Your task to perform on an android device: Open the calendar app, open the side menu, and click the "Day" option Image 0: 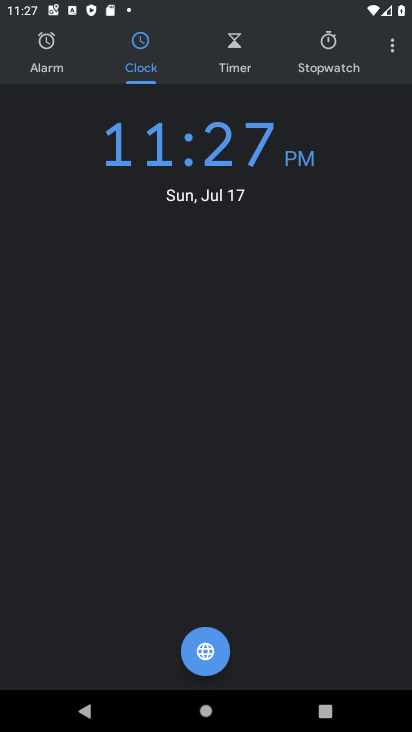
Step 0: press home button
Your task to perform on an android device: Open the calendar app, open the side menu, and click the "Day" option Image 1: 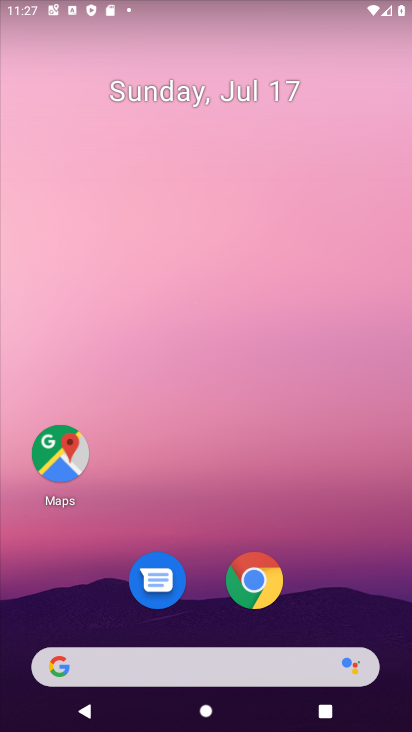
Step 1: drag from (248, 664) to (243, 231)
Your task to perform on an android device: Open the calendar app, open the side menu, and click the "Day" option Image 2: 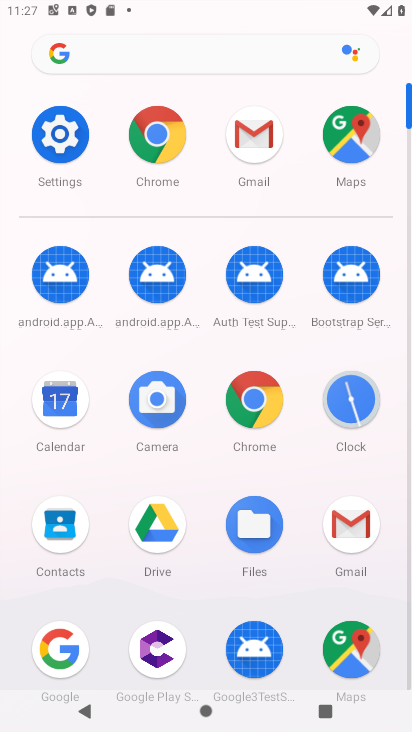
Step 2: drag from (138, 544) to (146, 405)
Your task to perform on an android device: Open the calendar app, open the side menu, and click the "Day" option Image 3: 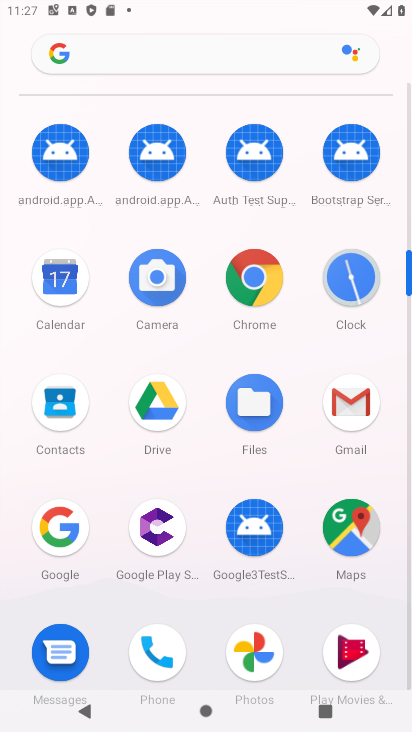
Step 3: click (64, 298)
Your task to perform on an android device: Open the calendar app, open the side menu, and click the "Day" option Image 4: 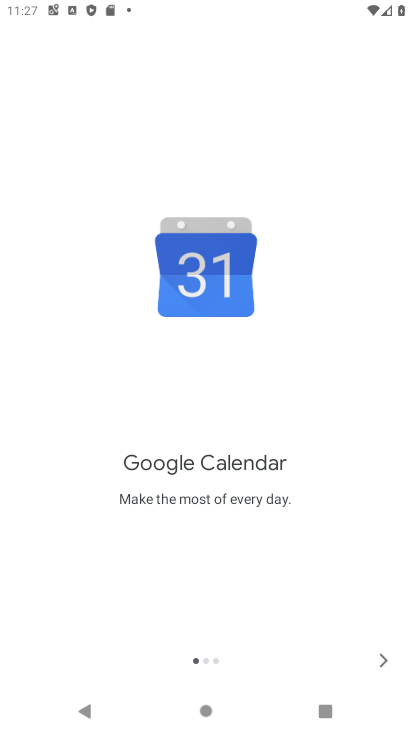
Step 4: click (380, 661)
Your task to perform on an android device: Open the calendar app, open the side menu, and click the "Day" option Image 5: 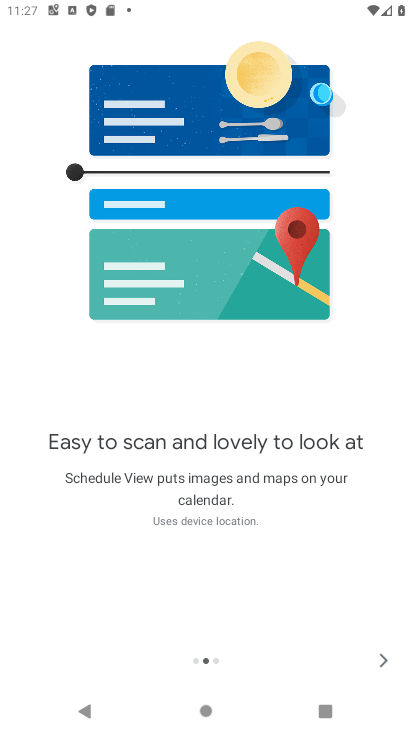
Step 5: click (376, 657)
Your task to perform on an android device: Open the calendar app, open the side menu, and click the "Day" option Image 6: 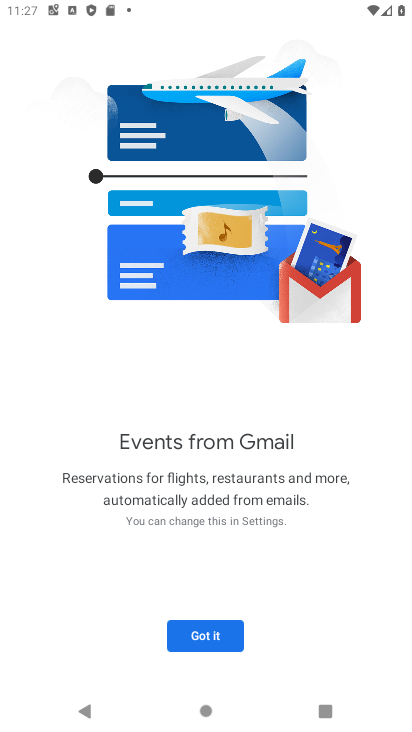
Step 6: click (222, 644)
Your task to perform on an android device: Open the calendar app, open the side menu, and click the "Day" option Image 7: 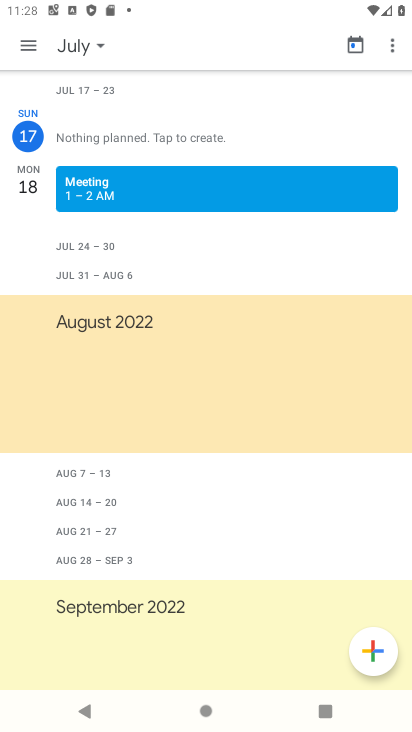
Step 7: click (26, 46)
Your task to perform on an android device: Open the calendar app, open the side menu, and click the "Day" option Image 8: 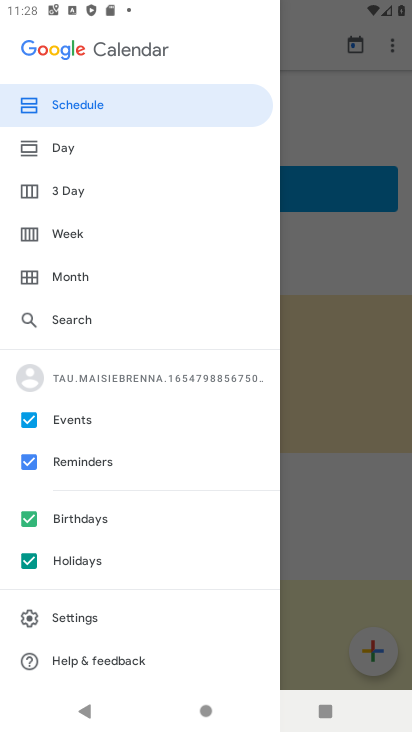
Step 8: click (80, 152)
Your task to perform on an android device: Open the calendar app, open the side menu, and click the "Day" option Image 9: 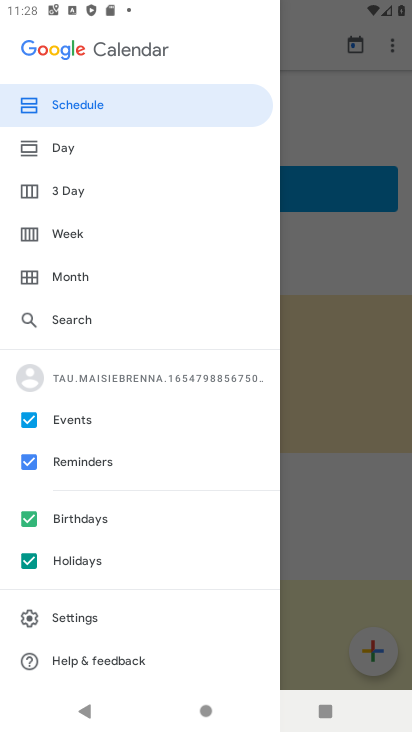
Step 9: click (88, 157)
Your task to perform on an android device: Open the calendar app, open the side menu, and click the "Day" option Image 10: 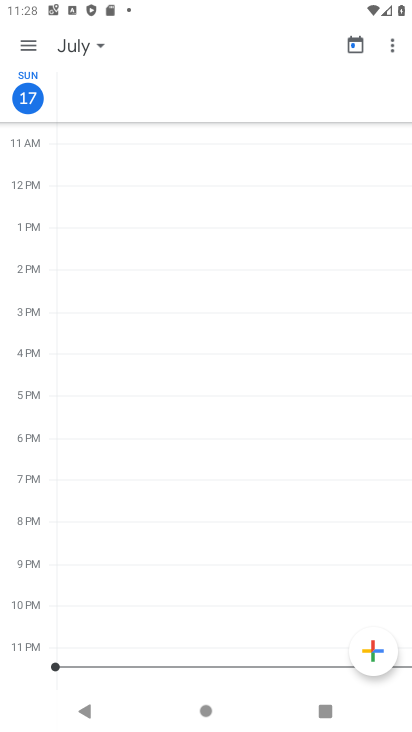
Step 10: task complete